Your task to perform on an android device: Search for vegetarian restaurants on Maps Image 0: 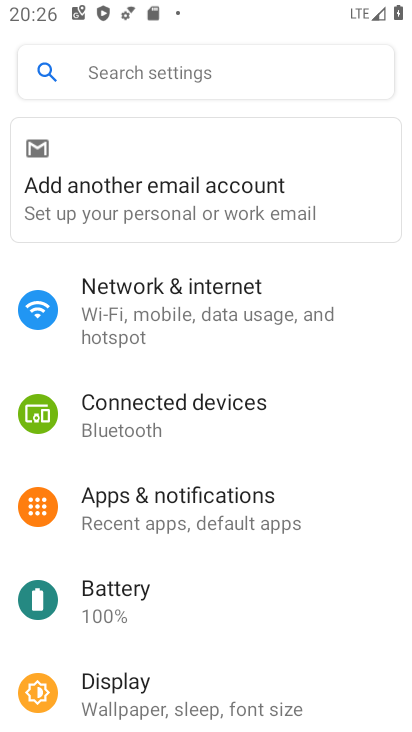
Step 0: press back button
Your task to perform on an android device: Search for vegetarian restaurants on Maps Image 1: 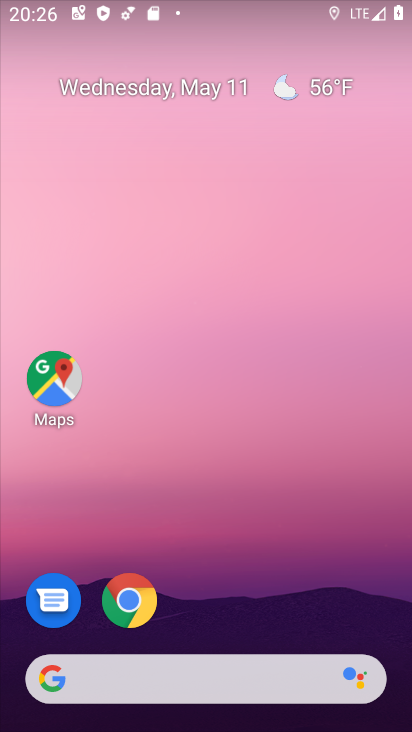
Step 1: click (53, 379)
Your task to perform on an android device: Search for vegetarian restaurants on Maps Image 2: 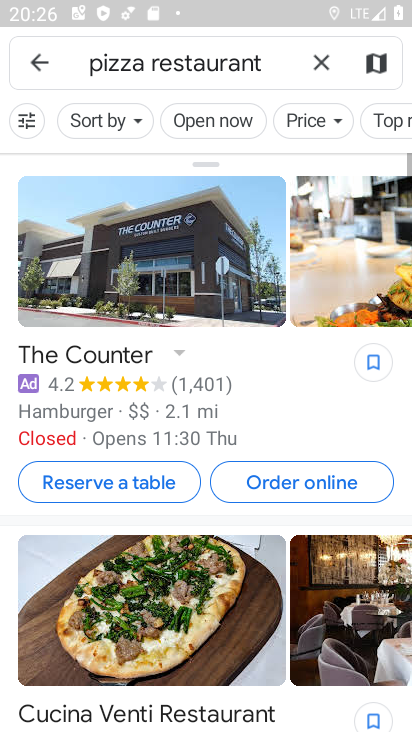
Step 2: click (319, 60)
Your task to perform on an android device: Search for vegetarian restaurants on Maps Image 3: 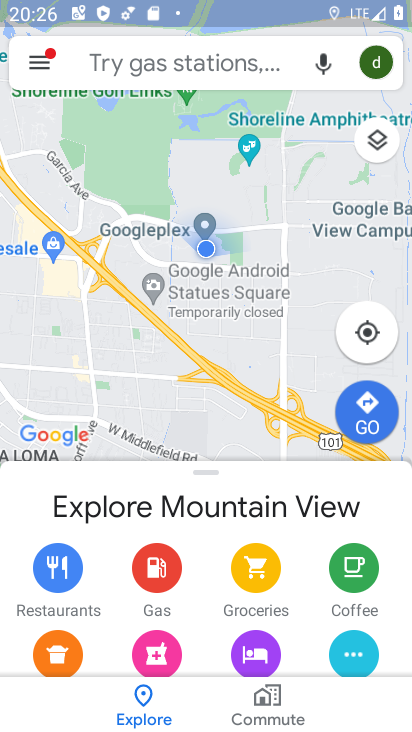
Step 3: click (190, 65)
Your task to perform on an android device: Search for vegetarian restaurants on Maps Image 4: 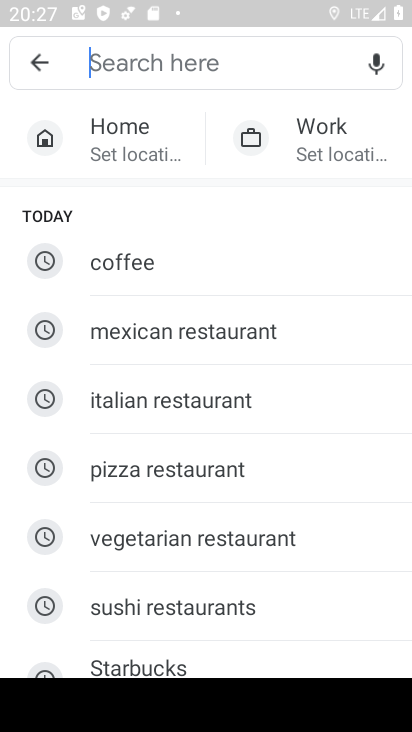
Step 4: type "vegetarian restaurants"
Your task to perform on an android device: Search for vegetarian restaurants on Maps Image 5: 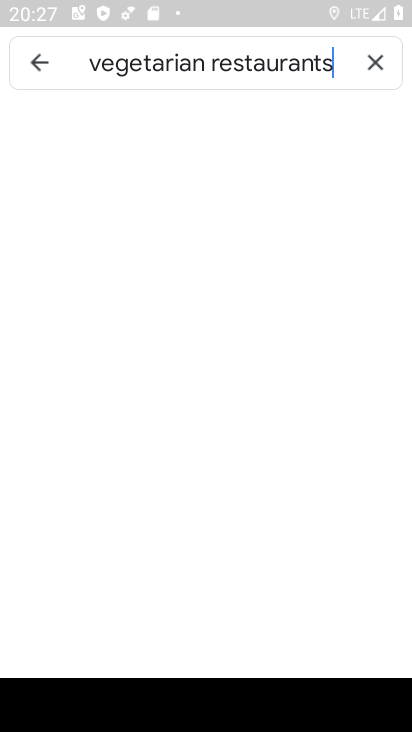
Step 5: type ""
Your task to perform on an android device: Search for vegetarian restaurants on Maps Image 6: 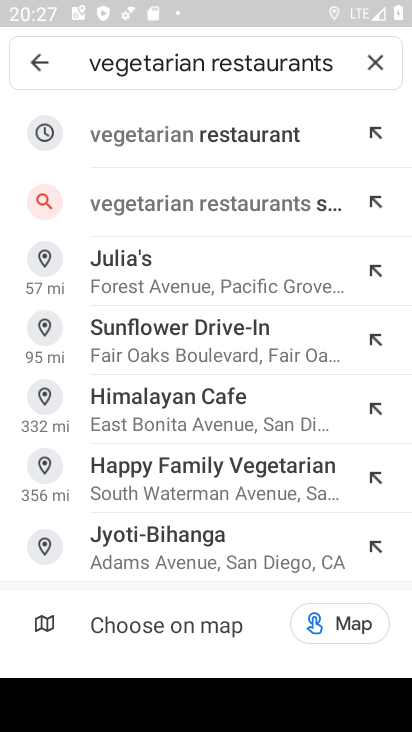
Step 6: click (185, 136)
Your task to perform on an android device: Search for vegetarian restaurants on Maps Image 7: 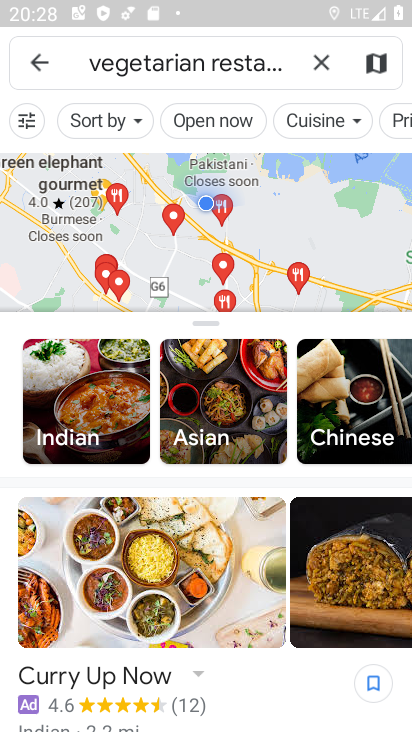
Step 7: task complete